Your task to perform on an android device: toggle pop-ups in chrome Image 0: 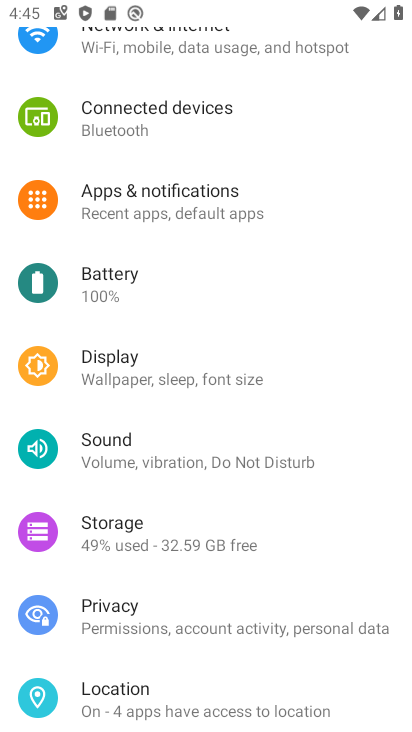
Step 0: press home button
Your task to perform on an android device: toggle pop-ups in chrome Image 1: 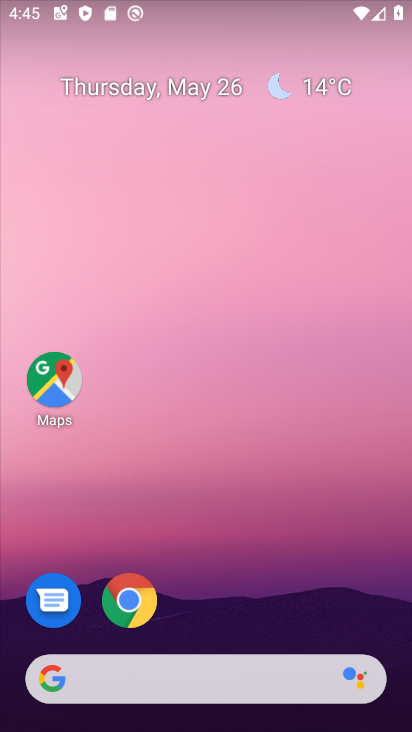
Step 1: click (128, 599)
Your task to perform on an android device: toggle pop-ups in chrome Image 2: 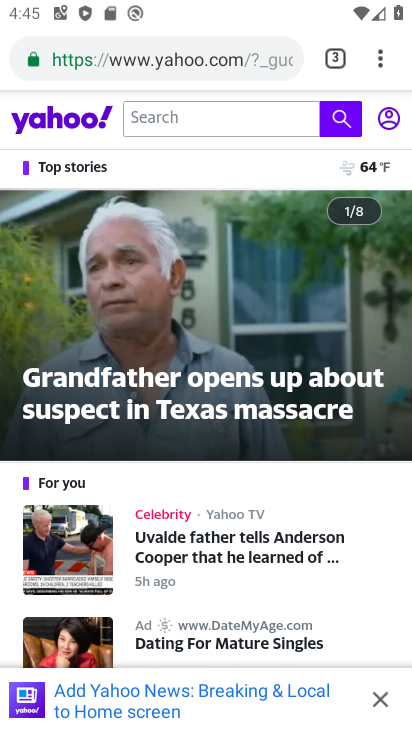
Step 2: click (387, 53)
Your task to perform on an android device: toggle pop-ups in chrome Image 3: 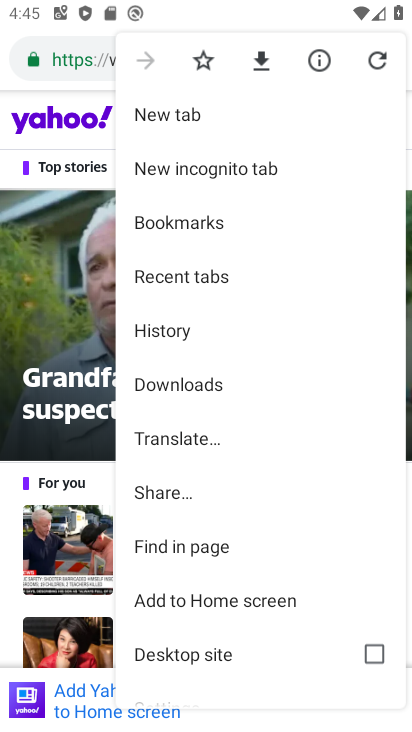
Step 3: drag from (188, 585) to (209, 172)
Your task to perform on an android device: toggle pop-ups in chrome Image 4: 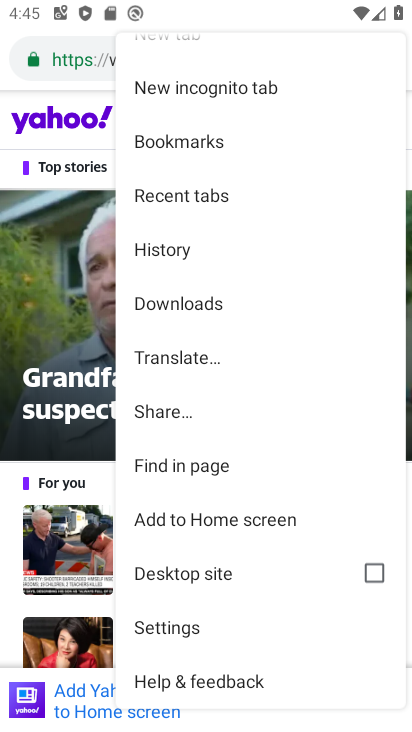
Step 4: click (178, 632)
Your task to perform on an android device: toggle pop-ups in chrome Image 5: 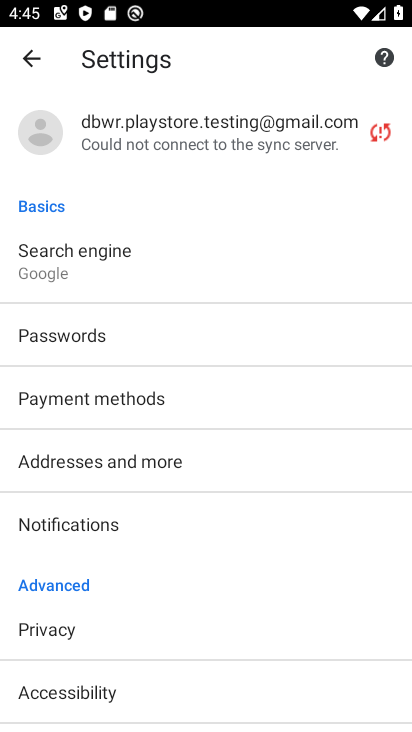
Step 5: drag from (73, 650) to (140, 262)
Your task to perform on an android device: toggle pop-ups in chrome Image 6: 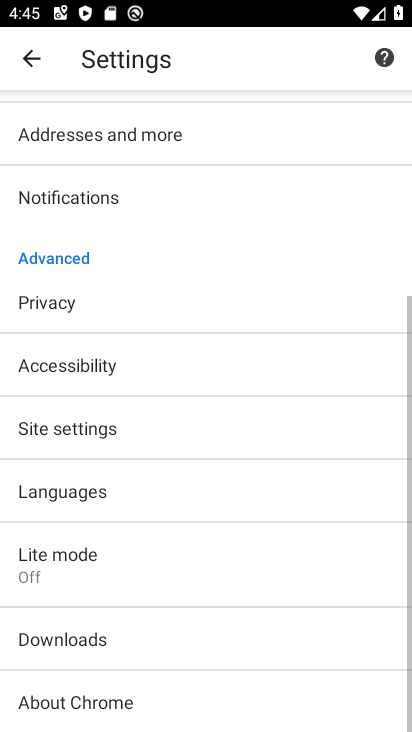
Step 6: drag from (61, 662) to (134, 231)
Your task to perform on an android device: toggle pop-ups in chrome Image 7: 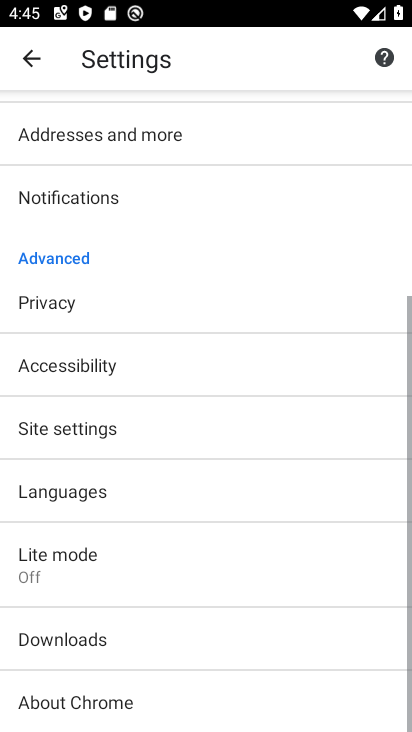
Step 7: click (83, 420)
Your task to perform on an android device: toggle pop-ups in chrome Image 8: 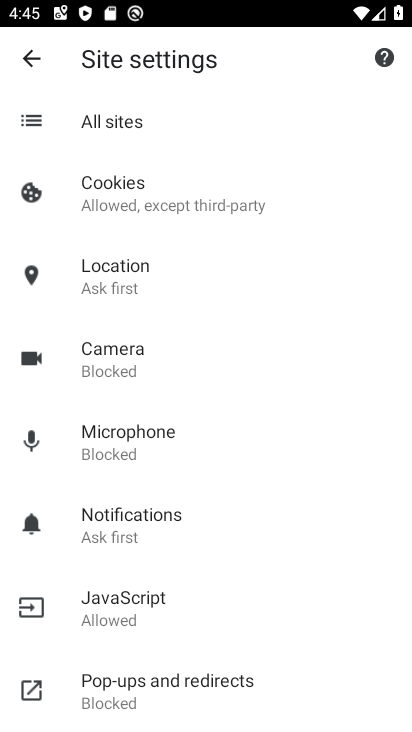
Step 8: click (102, 687)
Your task to perform on an android device: toggle pop-ups in chrome Image 9: 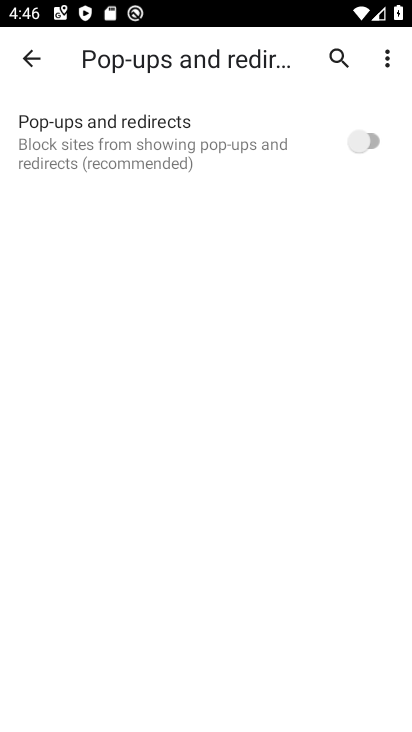
Step 9: click (380, 137)
Your task to perform on an android device: toggle pop-ups in chrome Image 10: 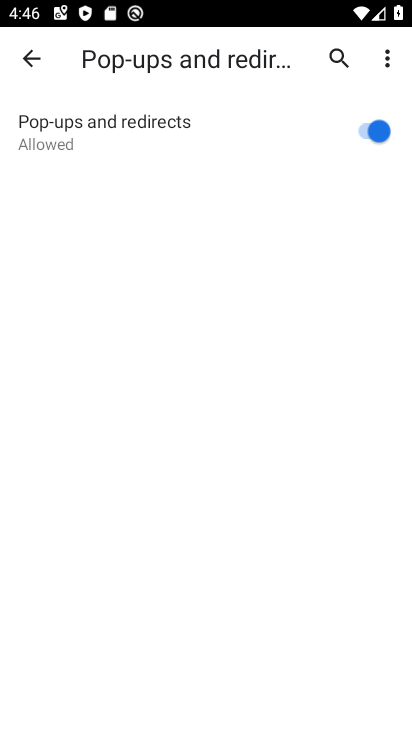
Step 10: click (380, 137)
Your task to perform on an android device: toggle pop-ups in chrome Image 11: 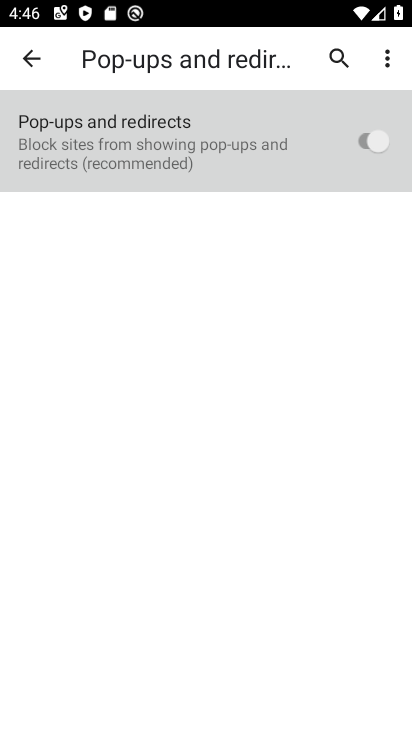
Step 11: click (361, 145)
Your task to perform on an android device: toggle pop-ups in chrome Image 12: 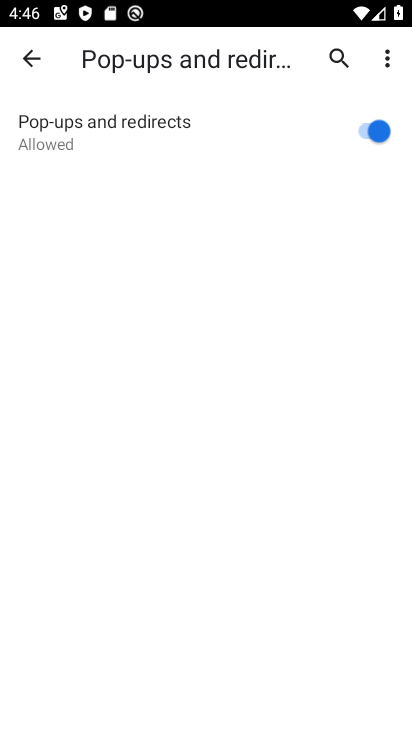
Step 12: click (369, 134)
Your task to perform on an android device: toggle pop-ups in chrome Image 13: 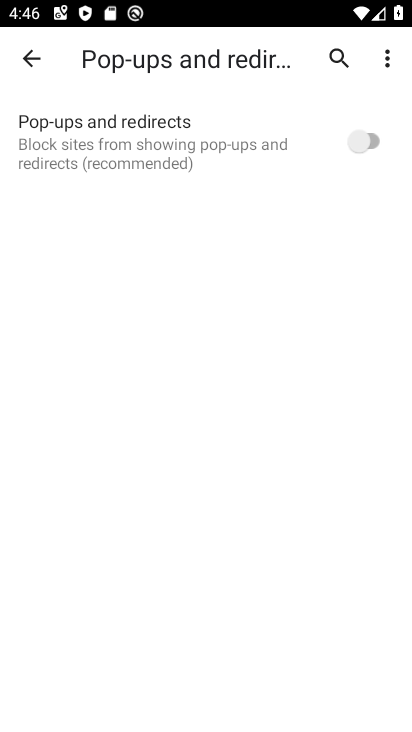
Step 13: task complete